Your task to perform on an android device: turn pop-ups on in chrome Image 0: 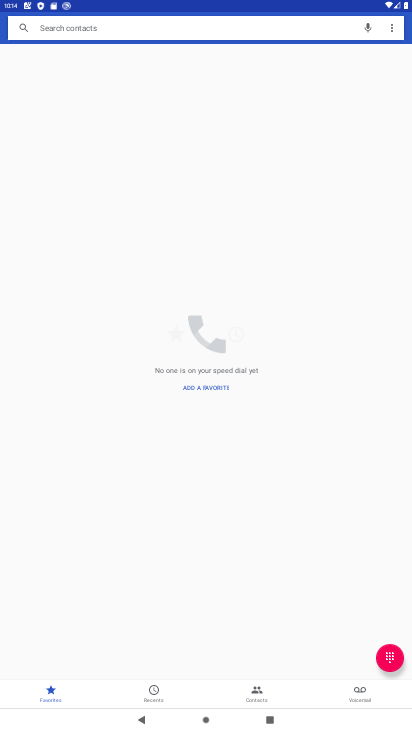
Step 0: press home button
Your task to perform on an android device: turn pop-ups on in chrome Image 1: 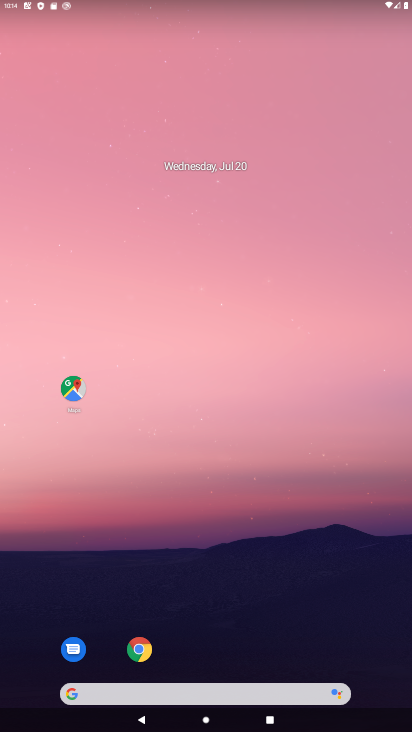
Step 1: click (149, 637)
Your task to perform on an android device: turn pop-ups on in chrome Image 2: 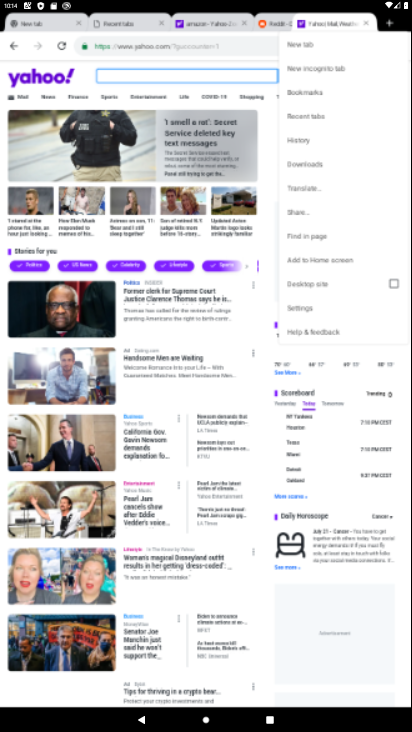
Step 2: task complete